Your task to perform on an android device: Open eBay Image 0: 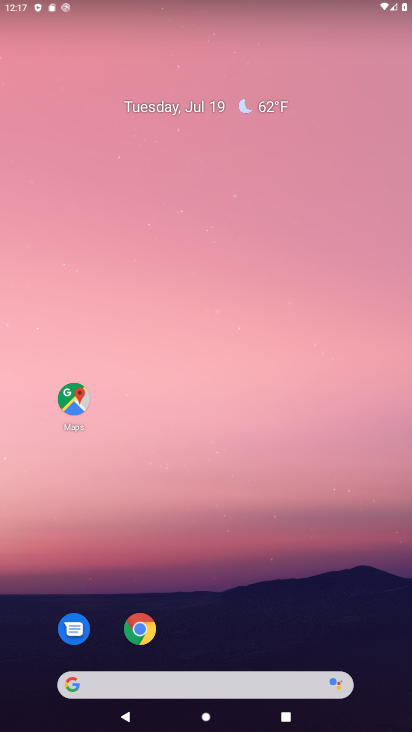
Step 0: drag from (215, 654) to (192, 95)
Your task to perform on an android device: Open eBay Image 1: 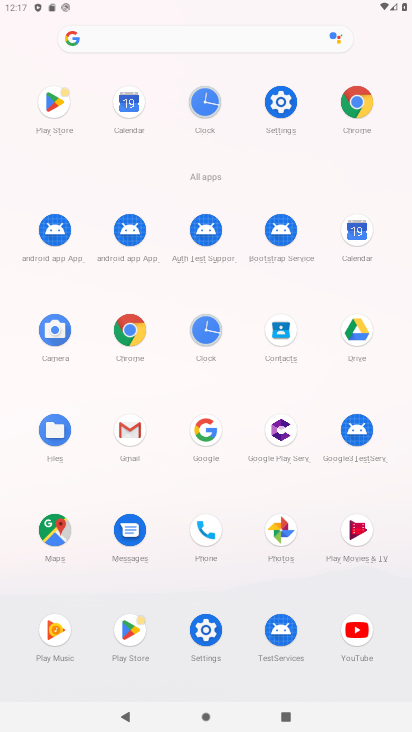
Step 1: click (349, 109)
Your task to perform on an android device: Open eBay Image 2: 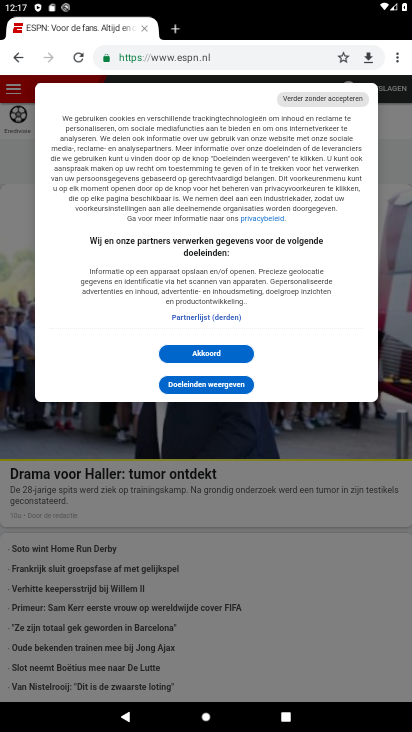
Step 2: click (172, 33)
Your task to perform on an android device: Open eBay Image 3: 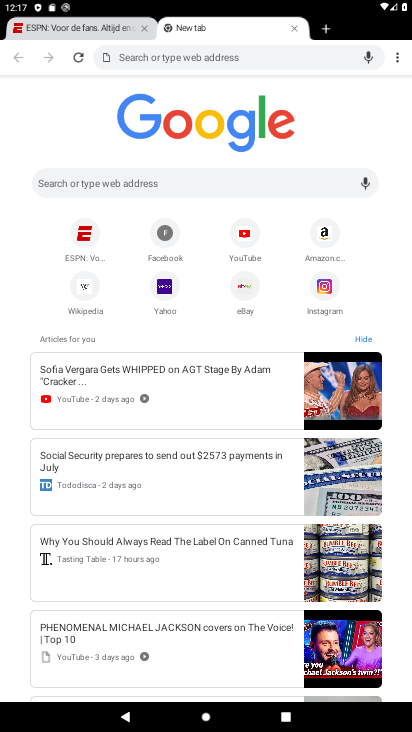
Step 3: click (247, 291)
Your task to perform on an android device: Open eBay Image 4: 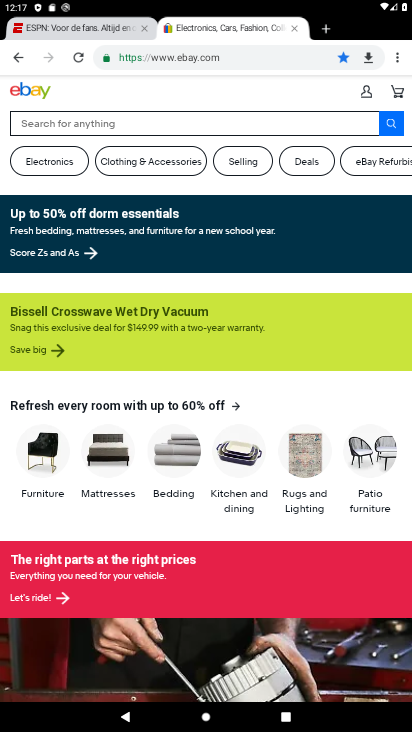
Step 4: task complete